Your task to perform on an android device: Open the calendar app, open the side menu, and click the "Day" option Image 0: 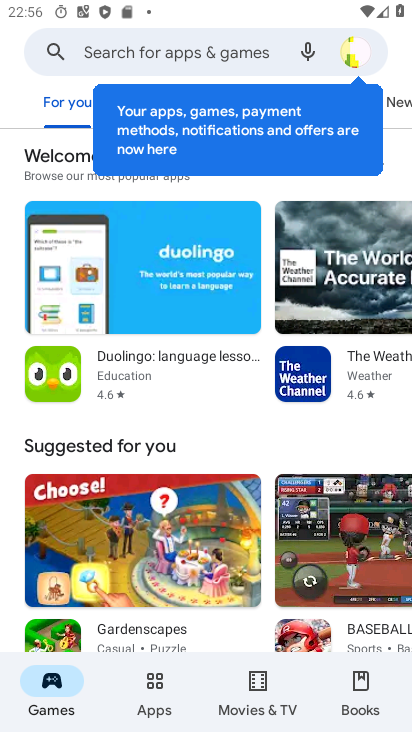
Step 0: press home button
Your task to perform on an android device: Open the calendar app, open the side menu, and click the "Day" option Image 1: 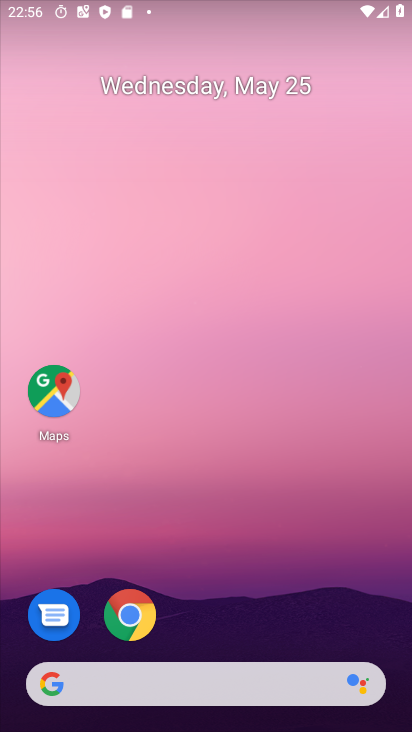
Step 1: drag from (368, 619) to (408, 193)
Your task to perform on an android device: Open the calendar app, open the side menu, and click the "Day" option Image 2: 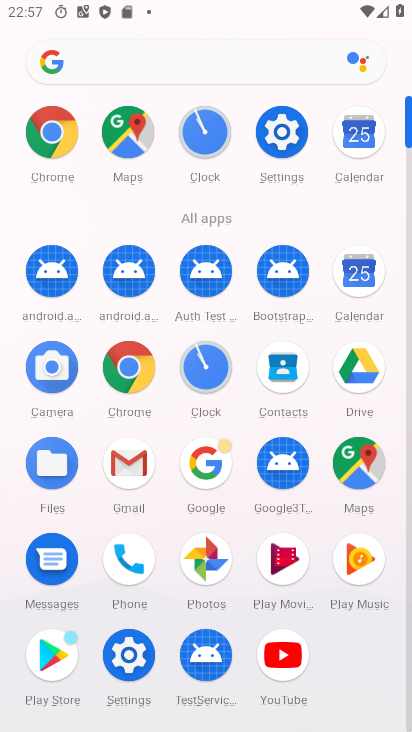
Step 2: click (369, 262)
Your task to perform on an android device: Open the calendar app, open the side menu, and click the "Day" option Image 3: 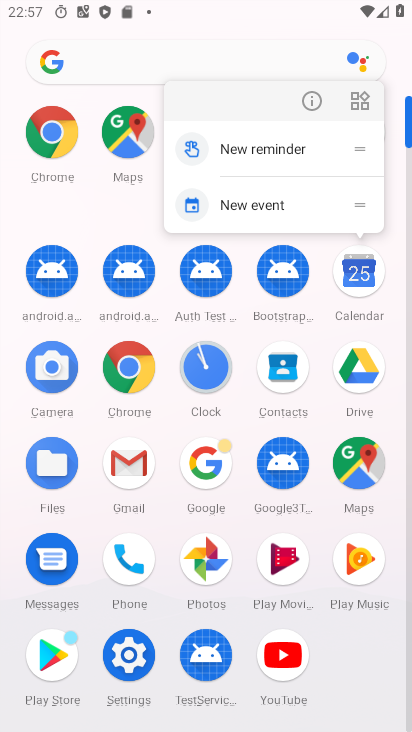
Step 3: click (353, 274)
Your task to perform on an android device: Open the calendar app, open the side menu, and click the "Day" option Image 4: 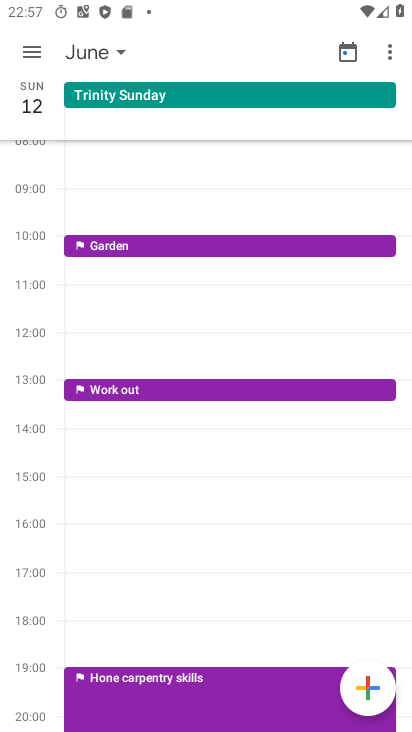
Step 4: click (38, 49)
Your task to perform on an android device: Open the calendar app, open the side menu, and click the "Day" option Image 5: 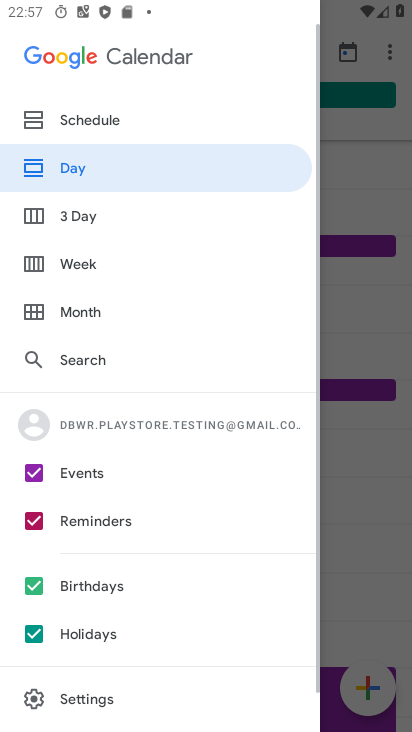
Step 5: click (90, 177)
Your task to perform on an android device: Open the calendar app, open the side menu, and click the "Day" option Image 6: 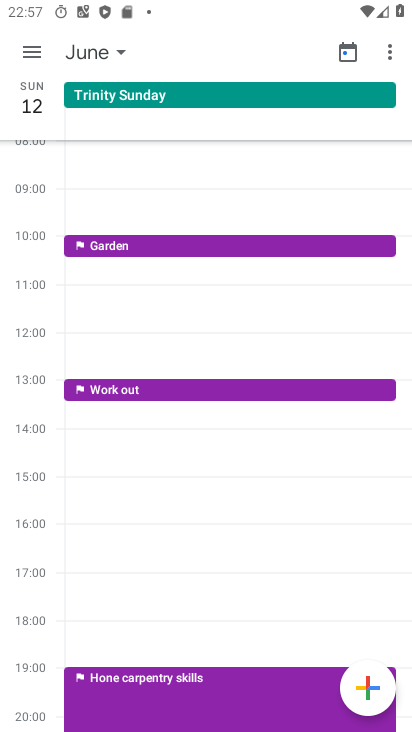
Step 6: task complete